Your task to perform on an android device: uninstall "LinkedIn" Image 0: 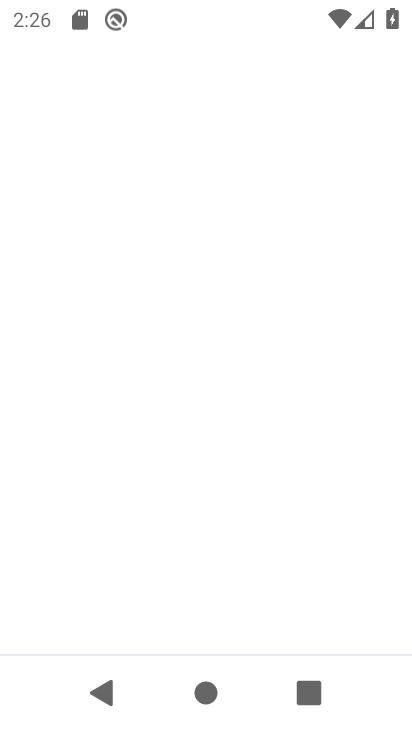
Step 0: press back button
Your task to perform on an android device: uninstall "LinkedIn" Image 1: 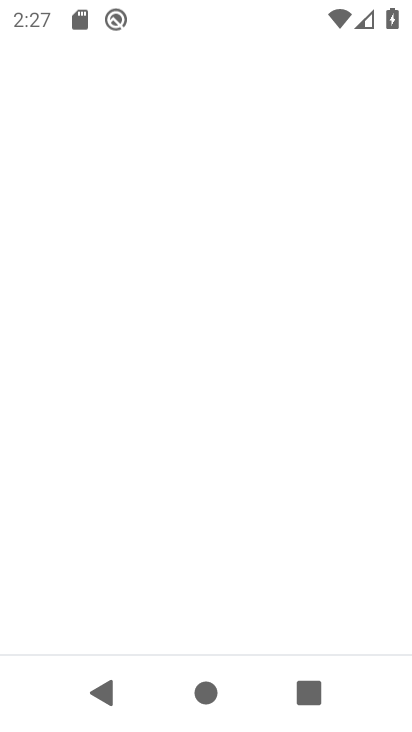
Step 1: press home button
Your task to perform on an android device: uninstall "LinkedIn" Image 2: 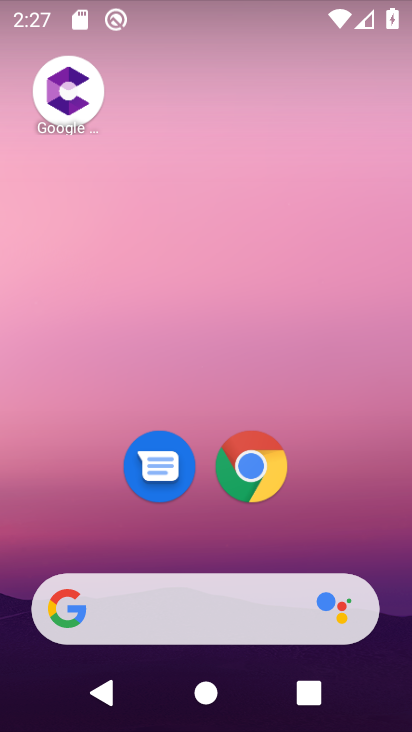
Step 2: drag from (211, 591) to (248, 0)
Your task to perform on an android device: uninstall "LinkedIn" Image 3: 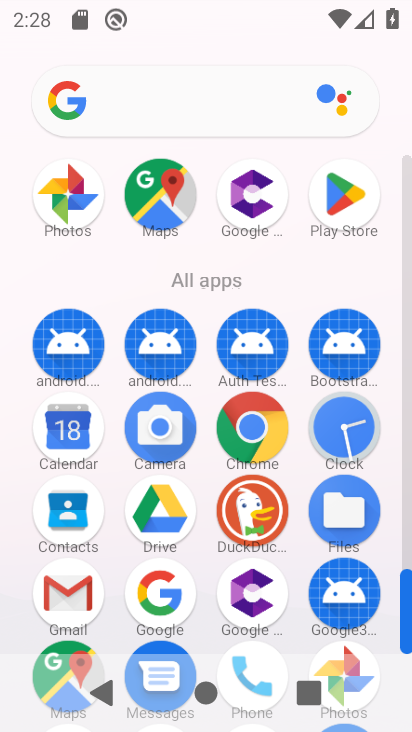
Step 3: click (338, 182)
Your task to perform on an android device: uninstall "LinkedIn" Image 4: 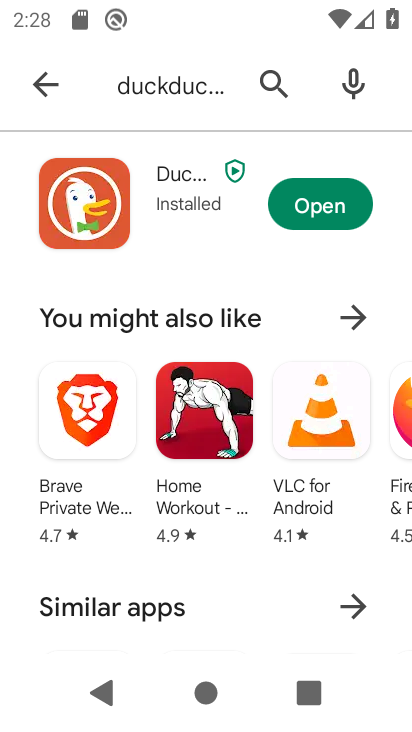
Step 4: click (275, 87)
Your task to perform on an android device: uninstall "LinkedIn" Image 5: 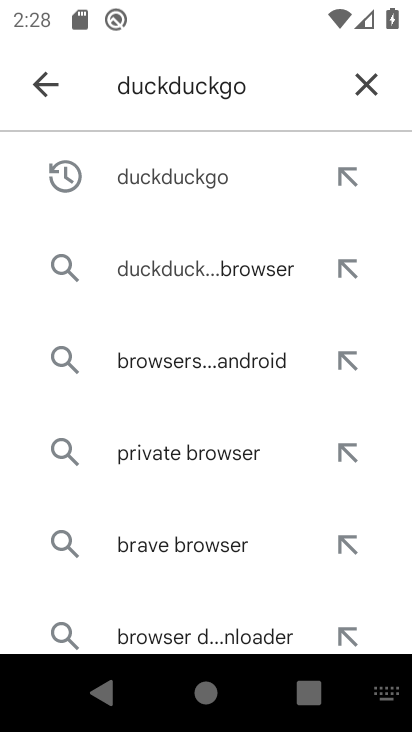
Step 5: click (351, 85)
Your task to perform on an android device: uninstall "LinkedIn" Image 6: 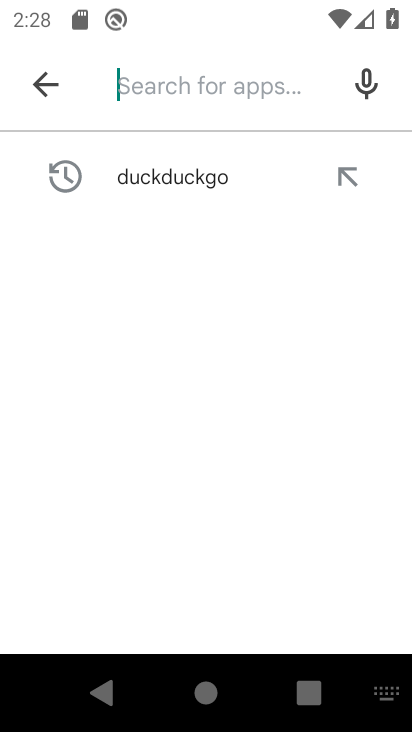
Step 6: type "linkedin"
Your task to perform on an android device: uninstall "LinkedIn" Image 7: 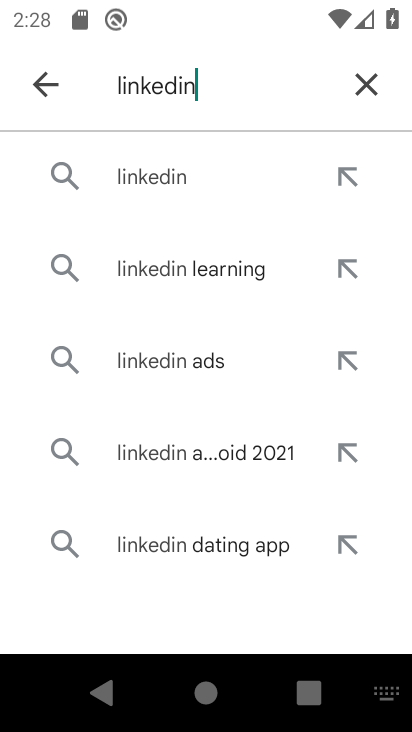
Step 7: click (131, 189)
Your task to perform on an android device: uninstall "LinkedIn" Image 8: 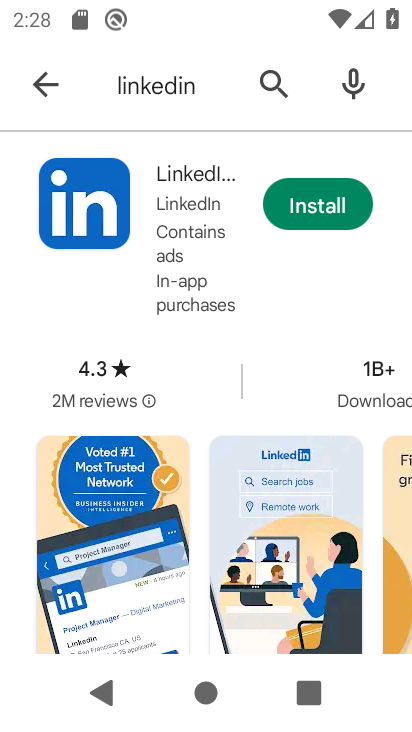
Step 8: task complete